Your task to perform on an android device: turn vacation reply on in the gmail app Image 0: 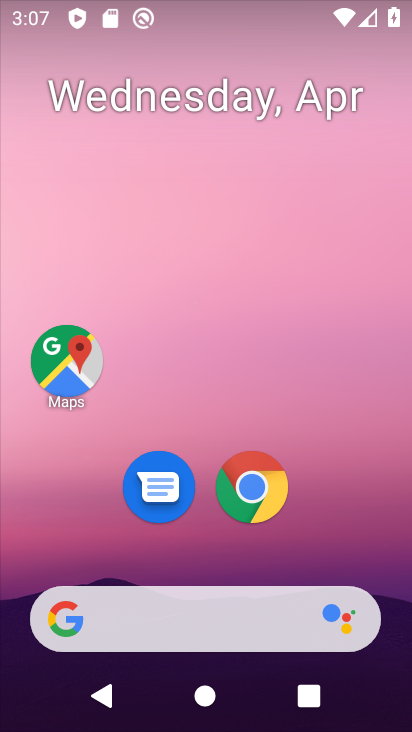
Step 0: drag from (356, 432) to (394, 122)
Your task to perform on an android device: turn vacation reply on in the gmail app Image 1: 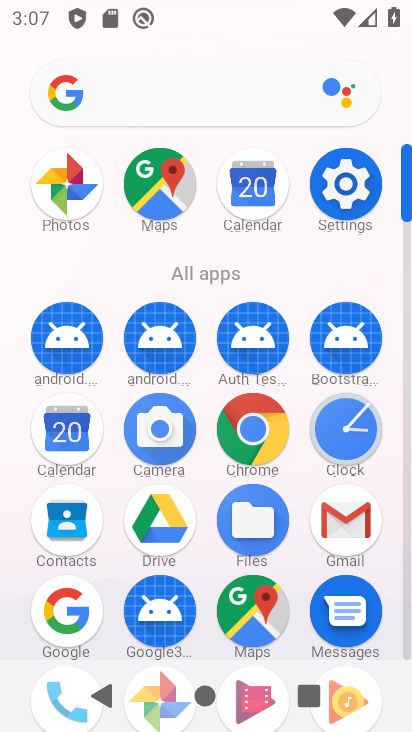
Step 1: drag from (308, 498) to (341, 326)
Your task to perform on an android device: turn vacation reply on in the gmail app Image 2: 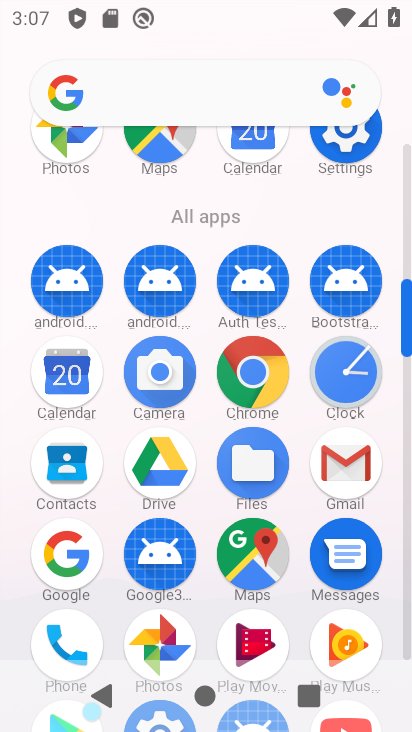
Step 2: drag from (295, 608) to (316, 383)
Your task to perform on an android device: turn vacation reply on in the gmail app Image 3: 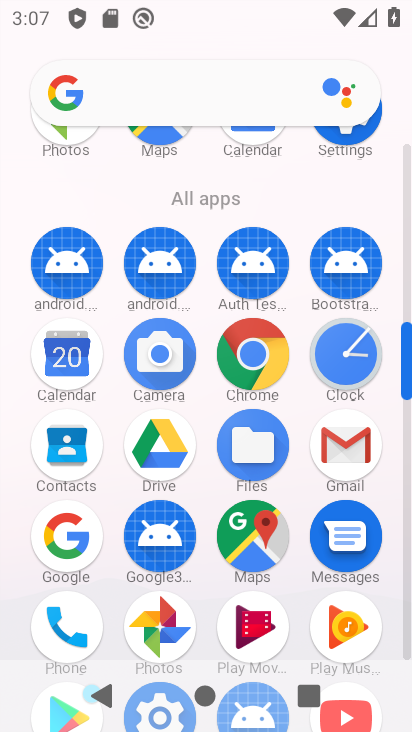
Step 3: drag from (294, 575) to (294, 377)
Your task to perform on an android device: turn vacation reply on in the gmail app Image 4: 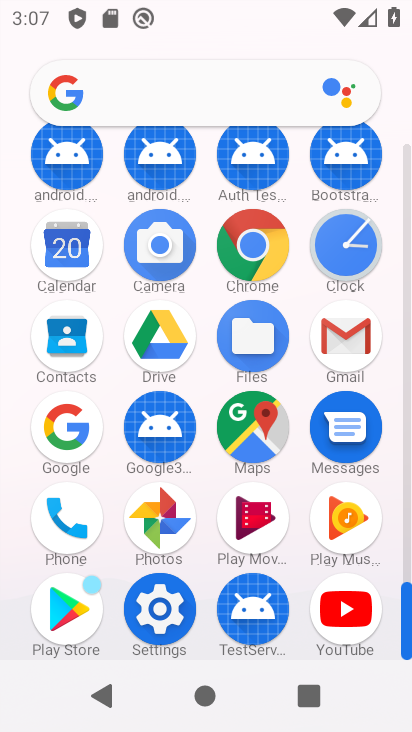
Step 4: click (351, 328)
Your task to perform on an android device: turn vacation reply on in the gmail app Image 5: 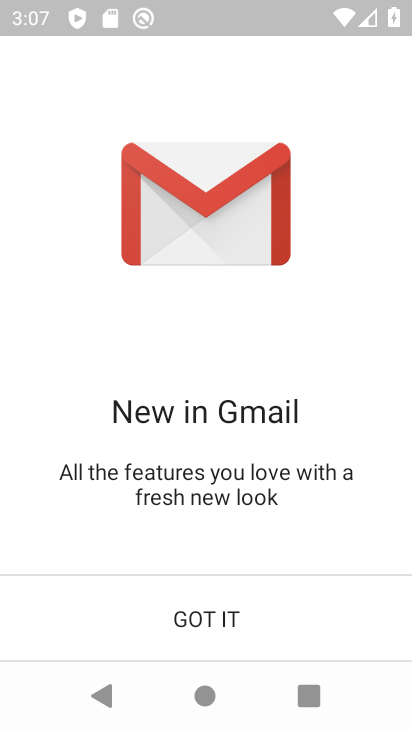
Step 5: click (229, 623)
Your task to perform on an android device: turn vacation reply on in the gmail app Image 6: 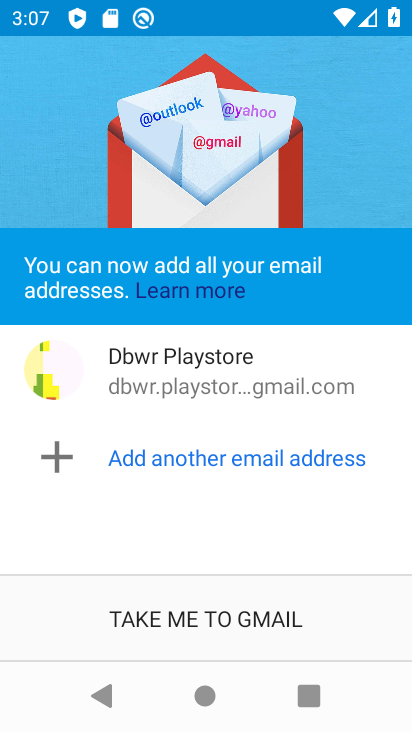
Step 6: click (254, 625)
Your task to perform on an android device: turn vacation reply on in the gmail app Image 7: 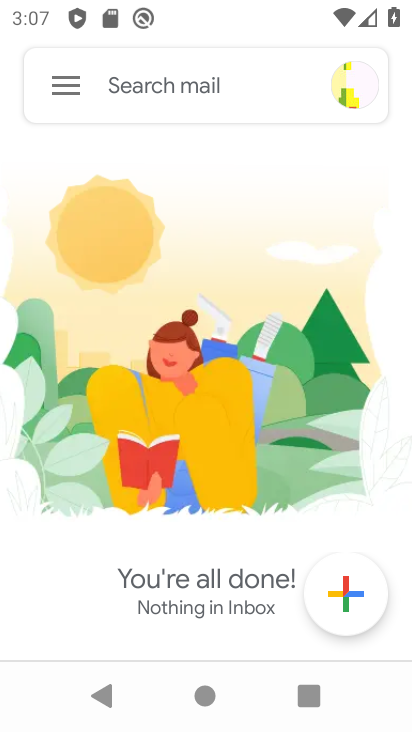
Step 7: click (71, 80)
Your task to perform on an android device: turn vacation reply on in the gmail app Image 8: 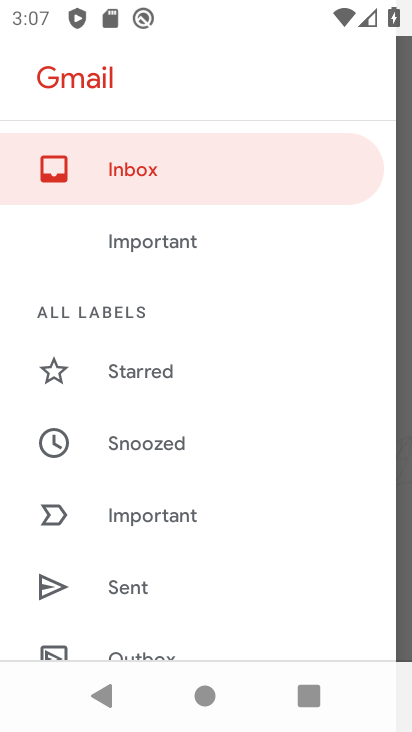
Step 8: drag from (251, 574) to (258, 300)
Your task to perform on an android device: turn vacation reply on in the gmail app Image 9: 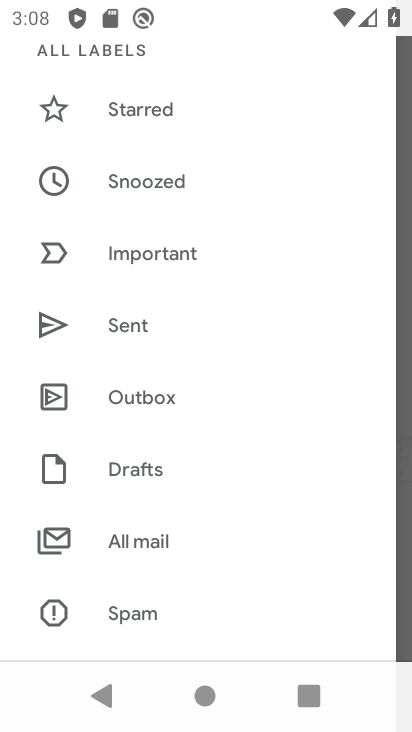
Step 9: drag from (238, 530) to (262, 242)
Your task to perform on an android device: turn vacation reply on in the gmail app Image 10: 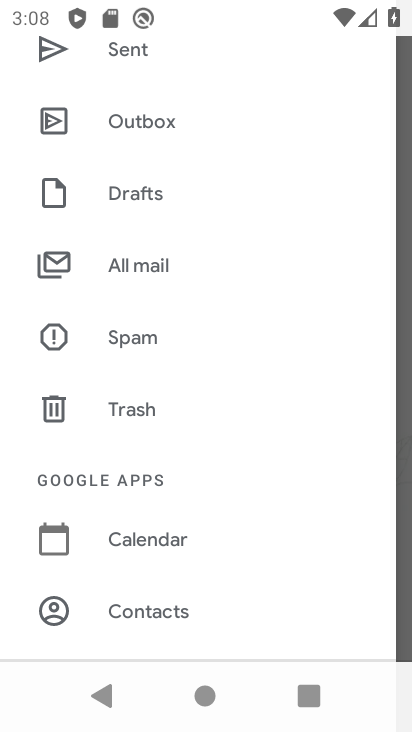
Step 10: drag from (249, 617) to (284, 295)
Your task to perform on an android device: turn vacation reply on in the gmail app Image 11: 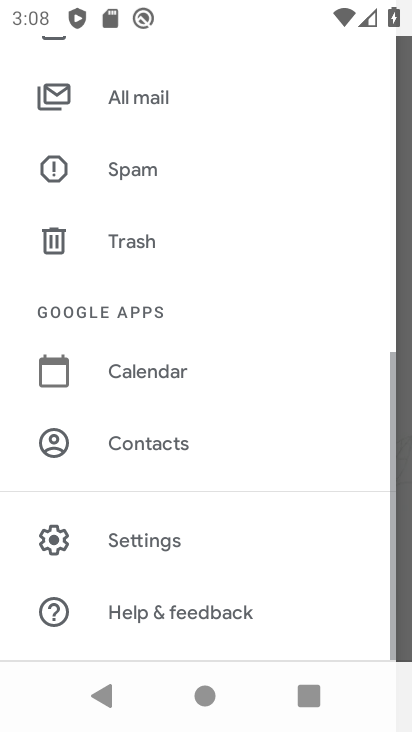
Step 11: click (159, 534)
Your task to perform on an android device: turn vacation reply on in the gmail app Image 12: 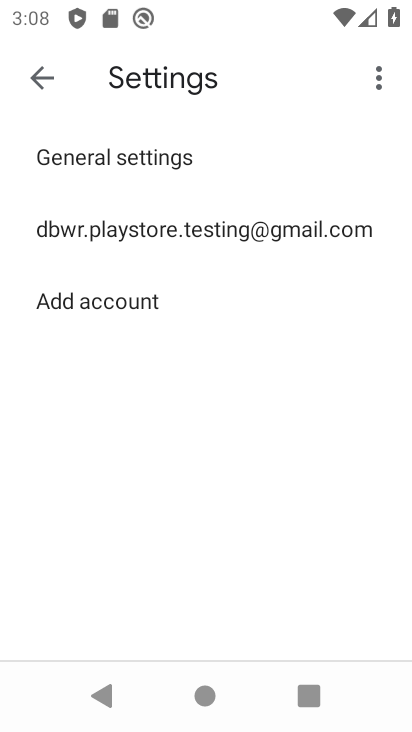
Step 12: click (178, 220)
Your task to perform on an android device: turn vacation reply on in the gmail app Image 13: 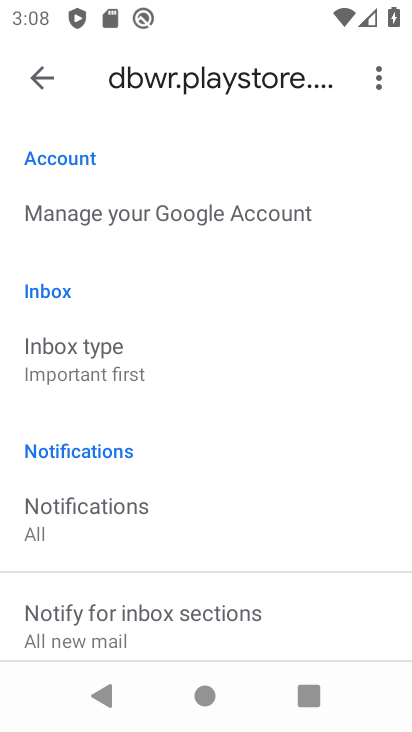
Step 13: task complete